Your task to perform on an android device: read, delete, or share a saved page in the chrome app Image 0: 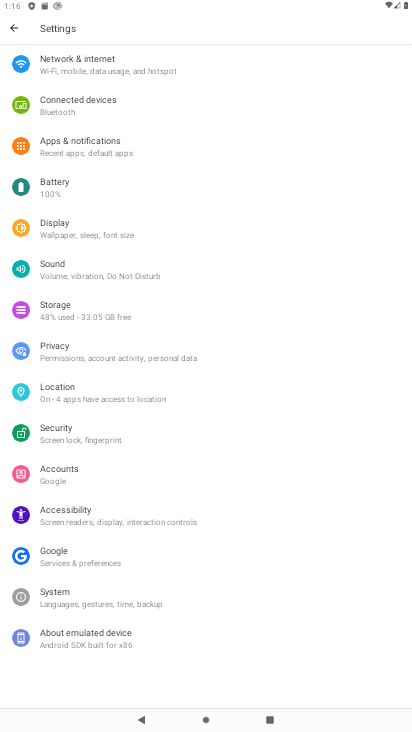
Step 0: press home button
Your task to perform on an android device: read, delete, or share a saved page in the chrome app Image 1: 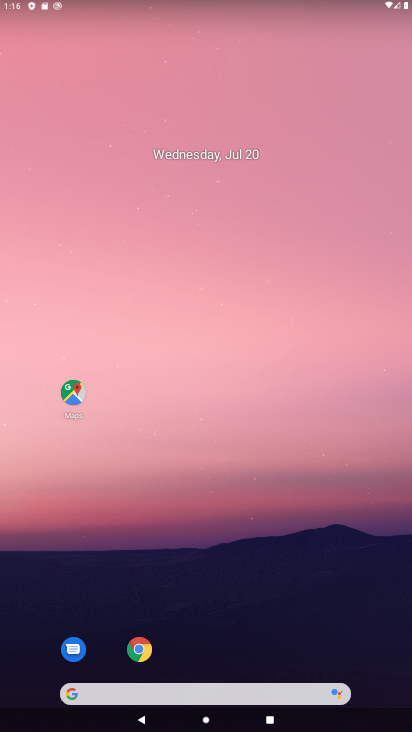
Step 1: drag from (190, 625) to (221, 270)
Your task to perform on an android device: read, delete, or share a saved page in the chrome app Image 2: 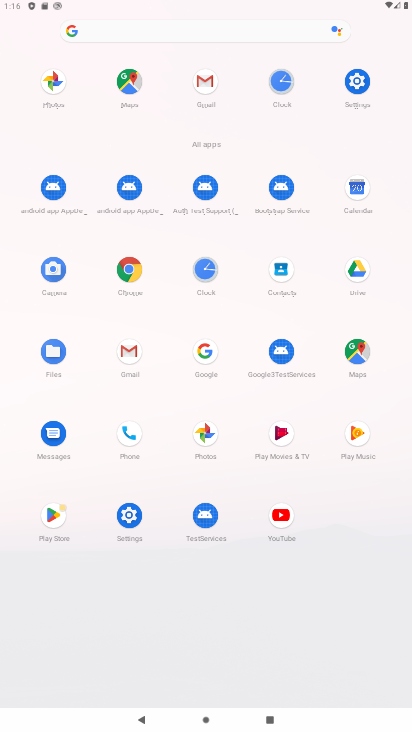
Step 2: click (132, 263)
Your task to perform on an android device: read, delete, or share a saved page in the chrome app Image 3: 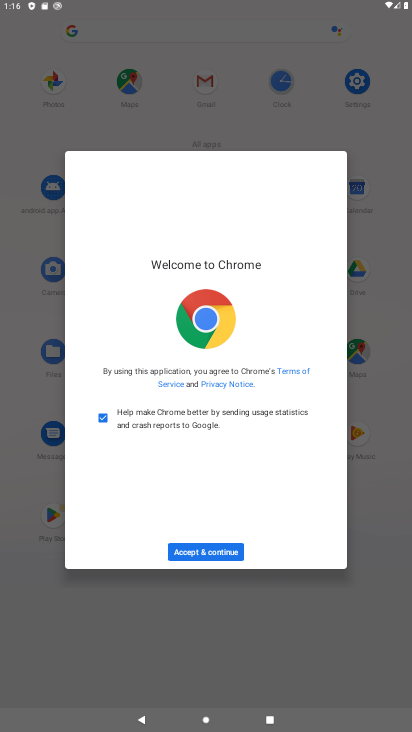
Step 3: click (220, 555)
Your task to perform on an android device: read, delete, or share a saved page in the chrome app Image 4: 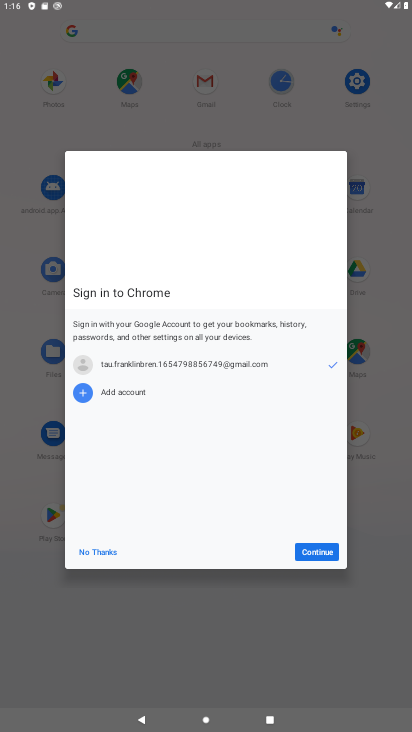
Step 4: click (309, 551)
Your task to perform on an android device: read, delete, or share a saved page in the chrome app Image 5: 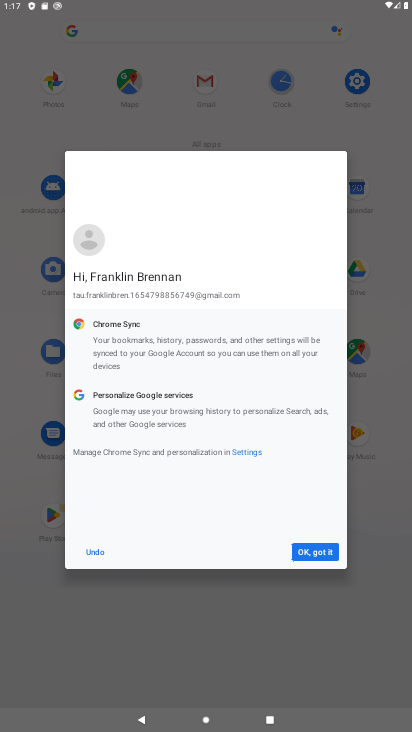
Step 5: click (309, 551)
Your task to perform on an android device: read, delete, or share a saved page in the chrome app Image 6: 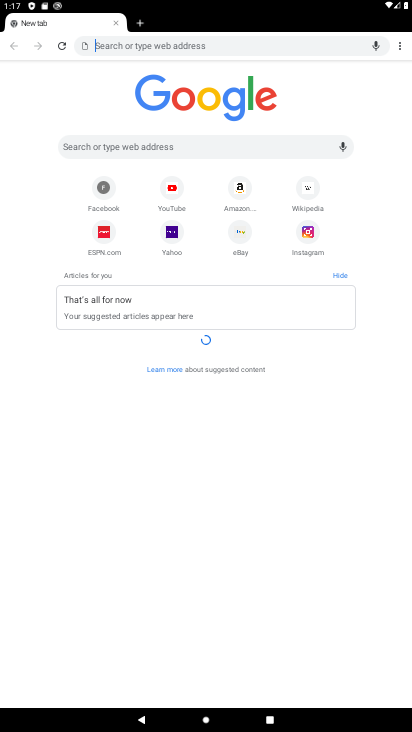
Step 6: drag from (395, 39) to (349, 172)
Your task to perform on an android device: read, delete, or share a saved page in the chrome app Image 7: 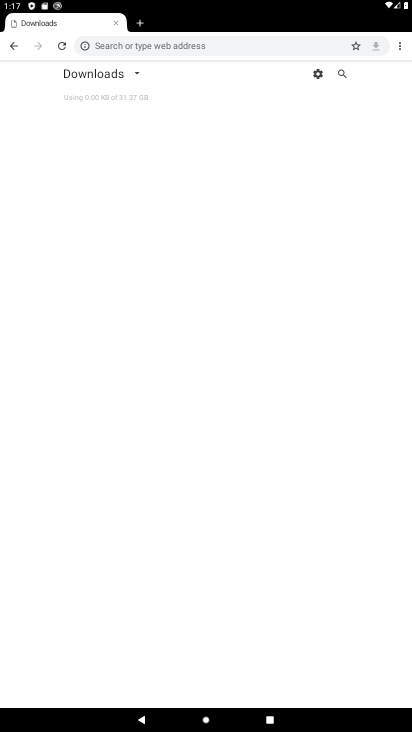
Step 7: click (85, 71)
Your task to perform on an android device: read, delete, or share a saved page in the chrome app Image 8: 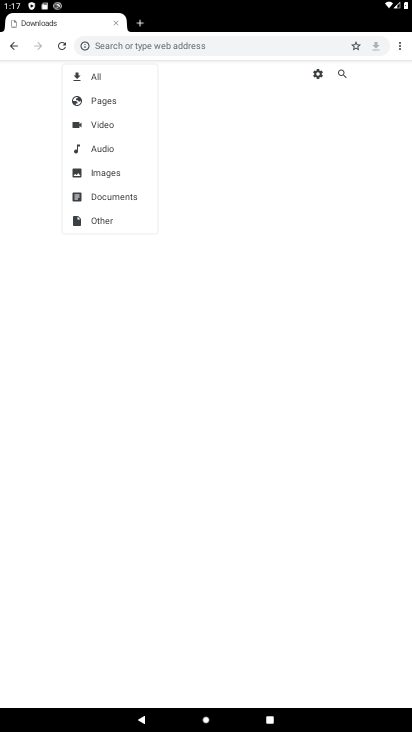
Step 8: click (104, 103)
Your task to perform on an android device: read, delete, or share a saved page in the chrome app Image 9: 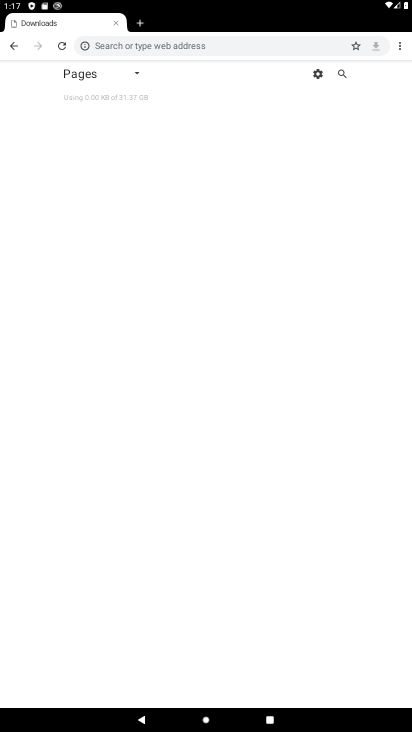
Step 9: task complete